Your task to perform on an android device: turn on sleep mode Image 0: 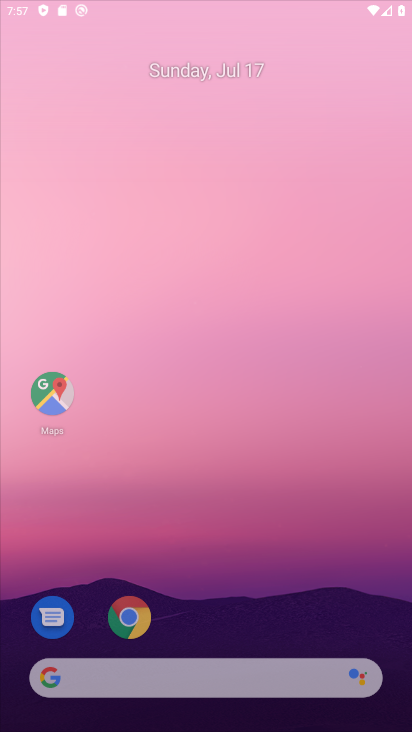
Step 0: click (233, 220)
Your task to perform on an android device: turn on sleep mode Image 1: 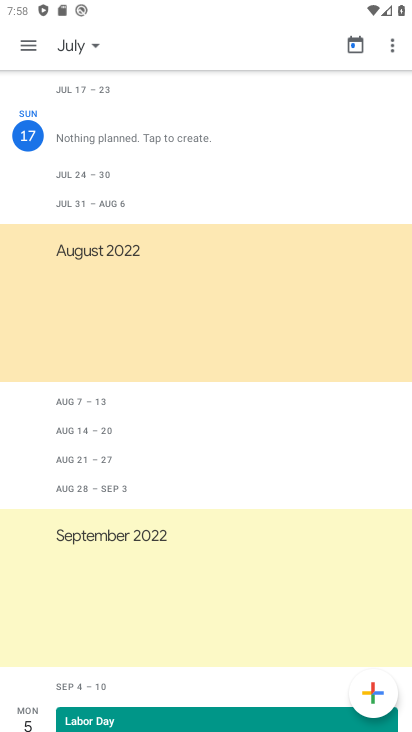
Step 1: press home button
Your task to perform on an android device: turn on sleep mode Image 2: 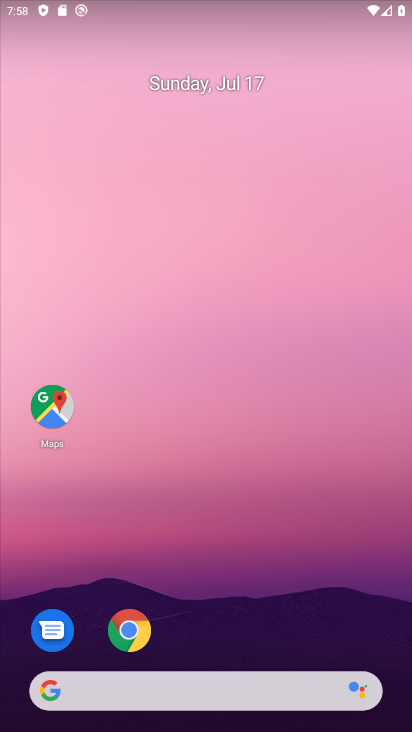
Step 2: drag from (229, 664) to (233, 140)
Your task to perform on an android device: turn on sleep mode Image 3: 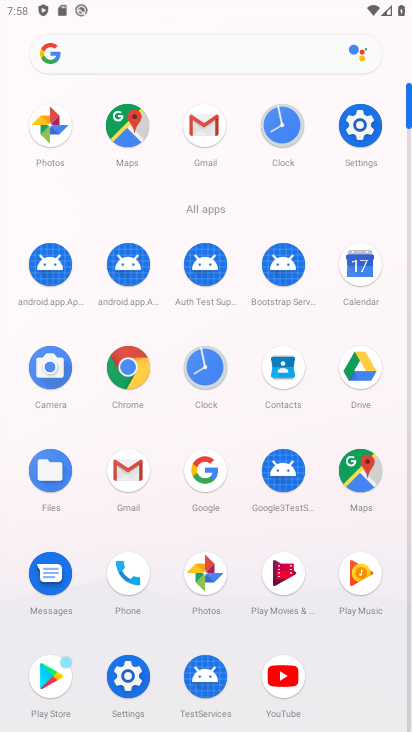
Step 3: click (347, 108)
Your task to perform on an android device: turn on sleep mode Image 4: 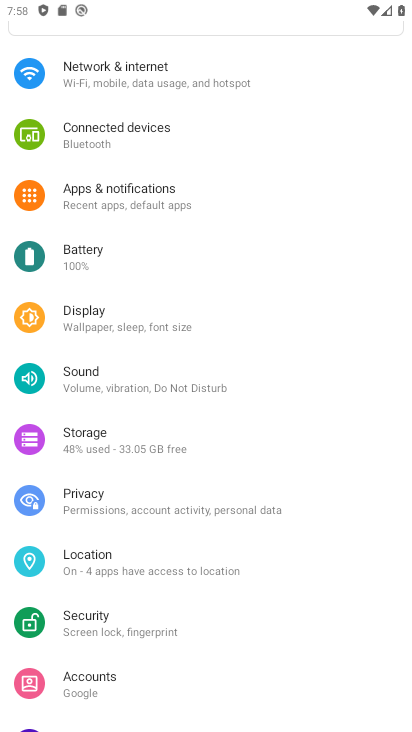
Step 4: click (245, 317)
Your task to perform on an android device: turn on sleep mode Image 5: 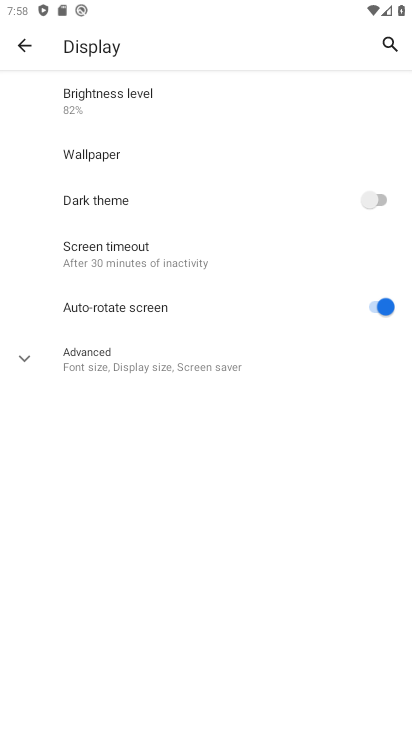
Step 5: click (259, 247)
Your task to perform on an android device: turn on sleep mode Image 6: 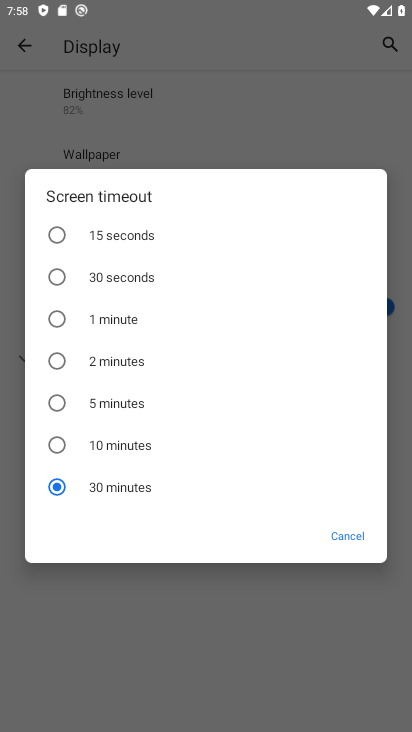
Step 6: click (235, 228)
Your task to perform on an android device: turn on sleep mode Image 7: 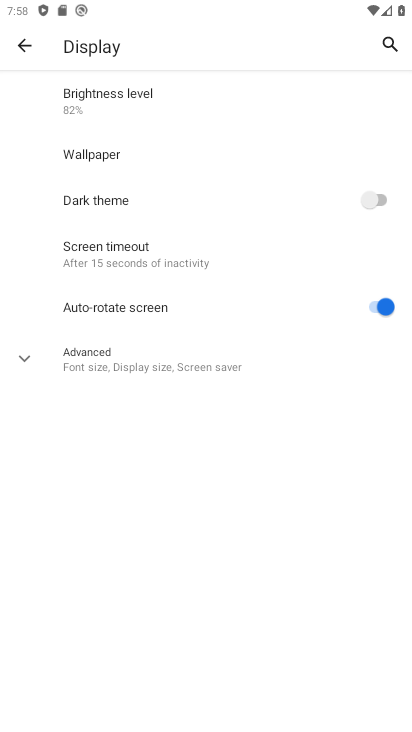
Step 7: task complete